Your task to perform on an android device: change text size in settings app Image 0: 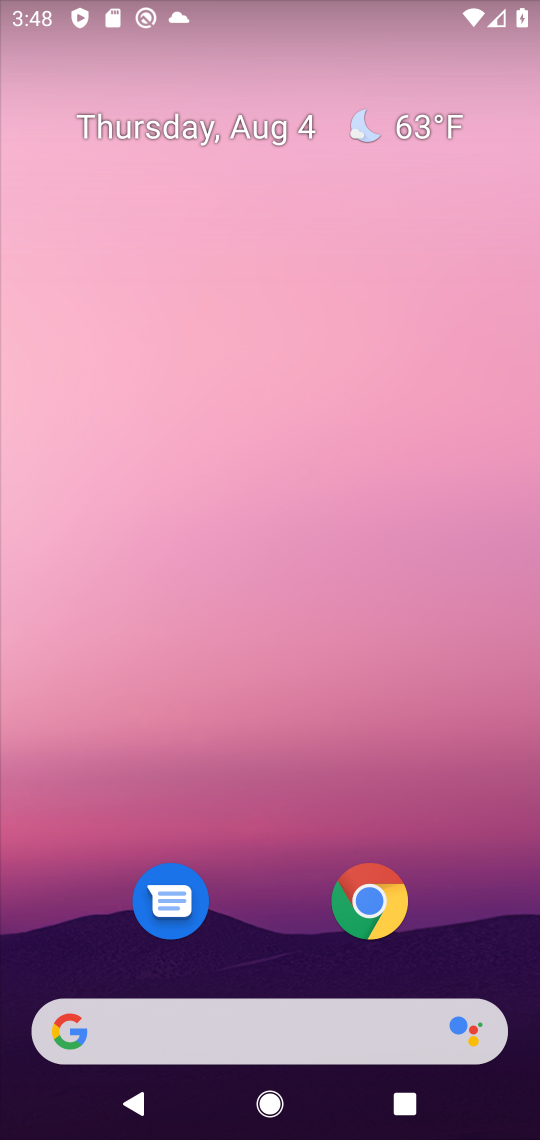
Step 0: press home button
Your task to perform on an android device: change text size in settings app Image 1: 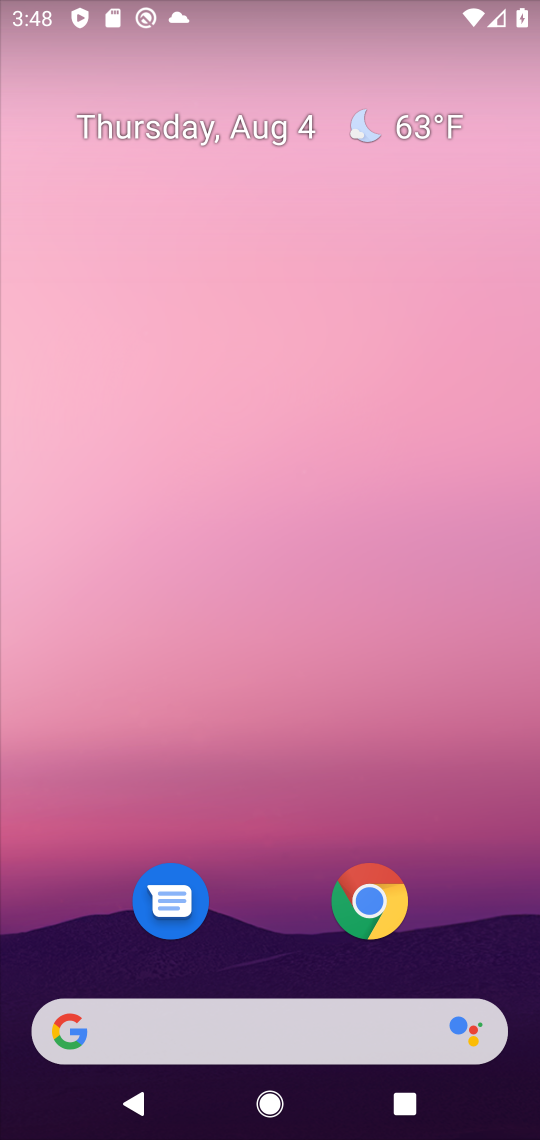
Step 1: drag from (209, 3) to (234, 634)
Your task to perform on an android device: change text size in settings app Image 2: 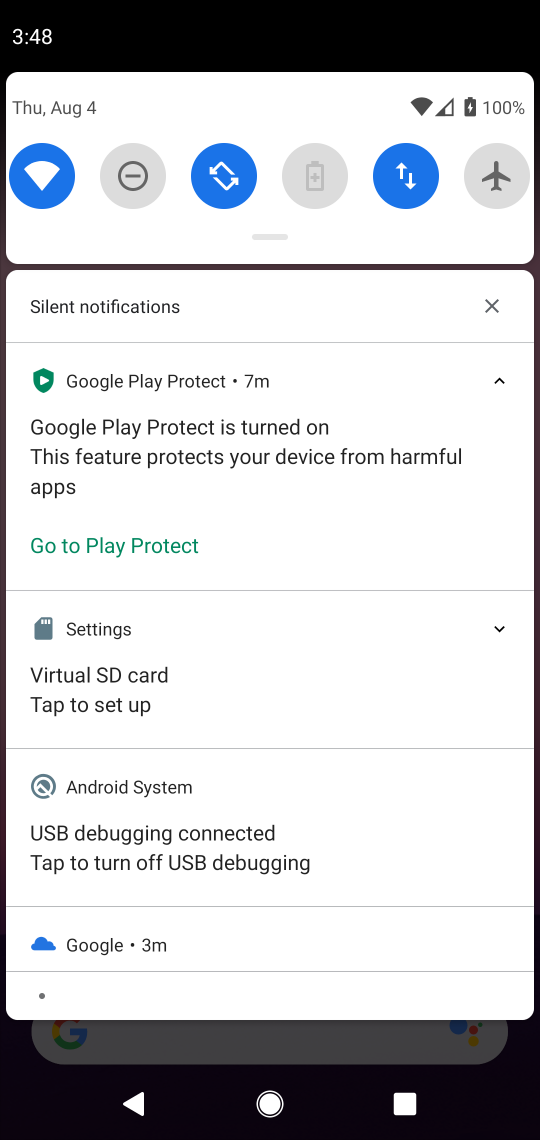
Step 2: press home button
Your task to perform on an android device: change text size in settings app Image 3: 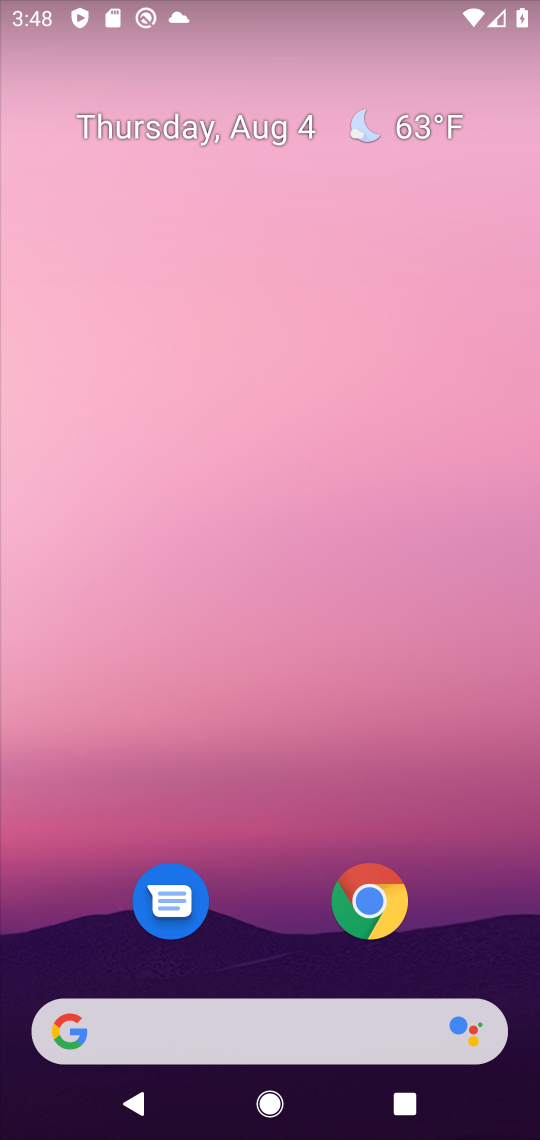
Step 3: drag from (251, 848) to (319, 196)
Your task to perform on an android device: change text size in settings app Image 4: 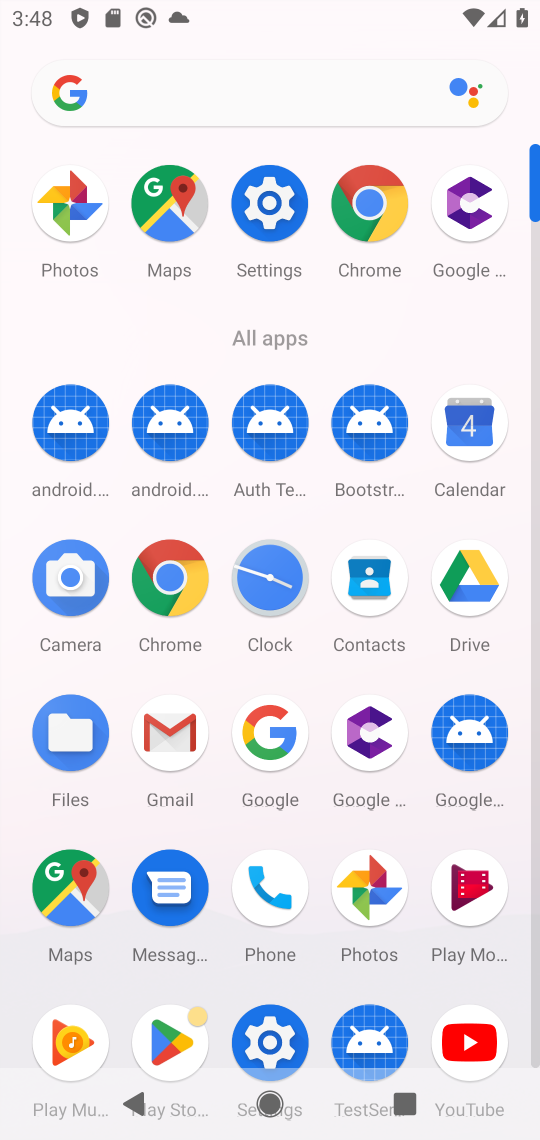
Step 4: click (280, 1041)
Your task to perform on an android device: change text size in settings app Image 5: 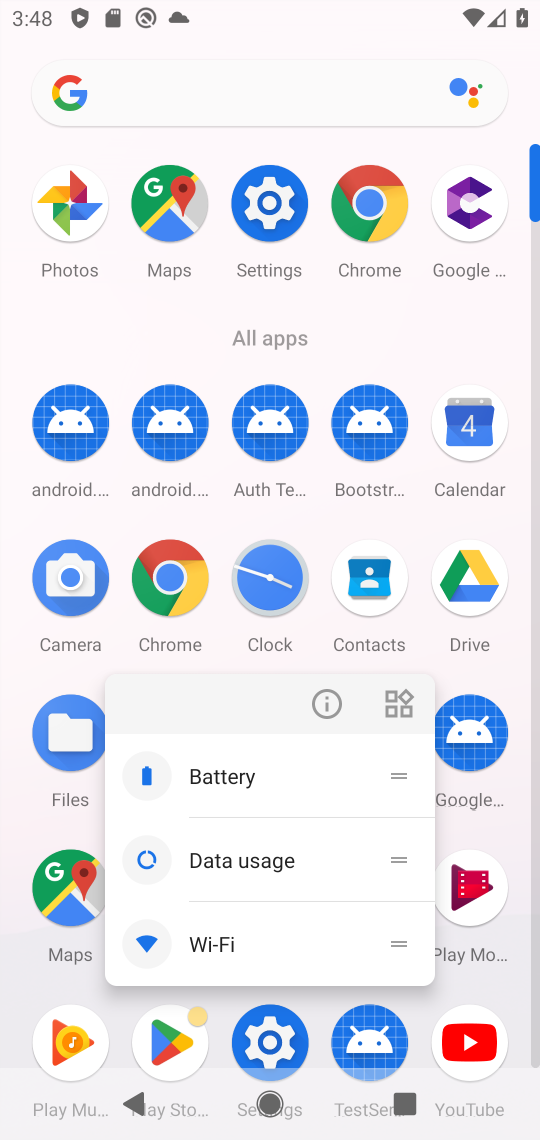
Step 5: click (274, 1034)
Your task to perform on an android device: change text size in settings app Image 6: 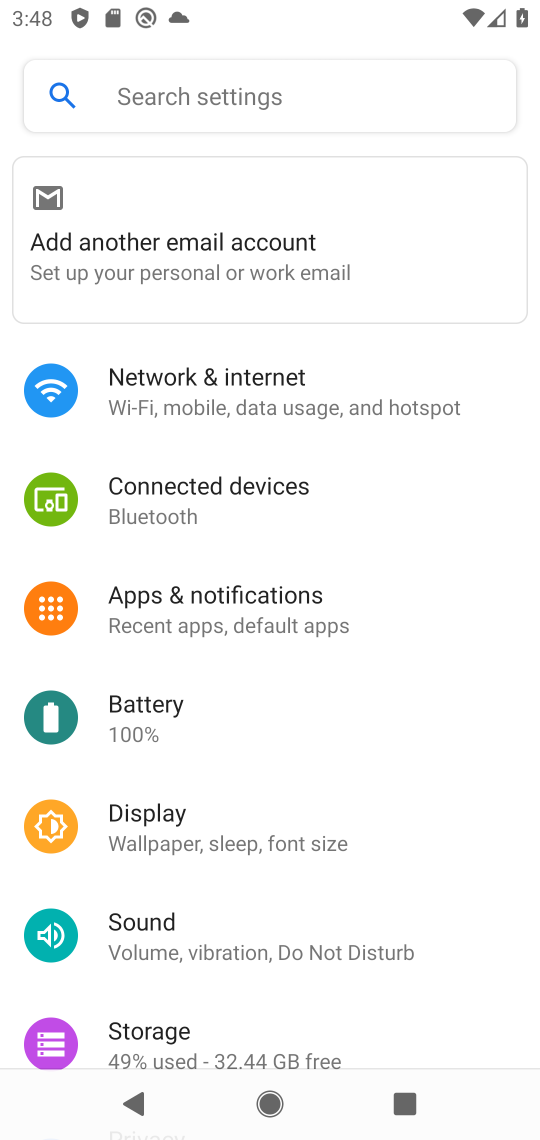
Step 6: drag from (234, 923) to (143, 588)
Your task to perform on an android device: change text size in settings app Image 7: 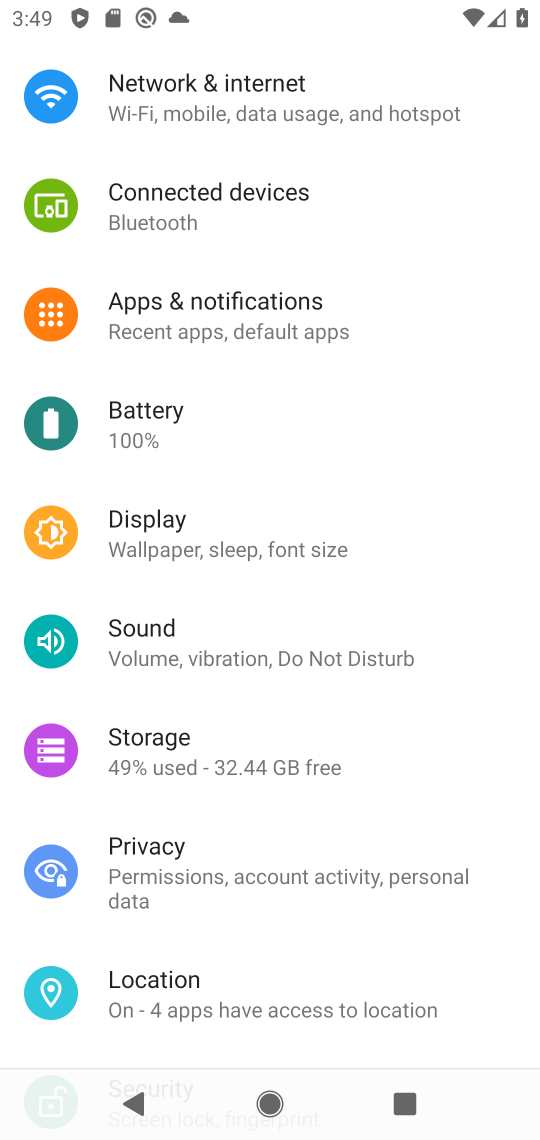
Step 7: click (186, 533)
Your task to perform on an android device: change text size in settings app Image 8: 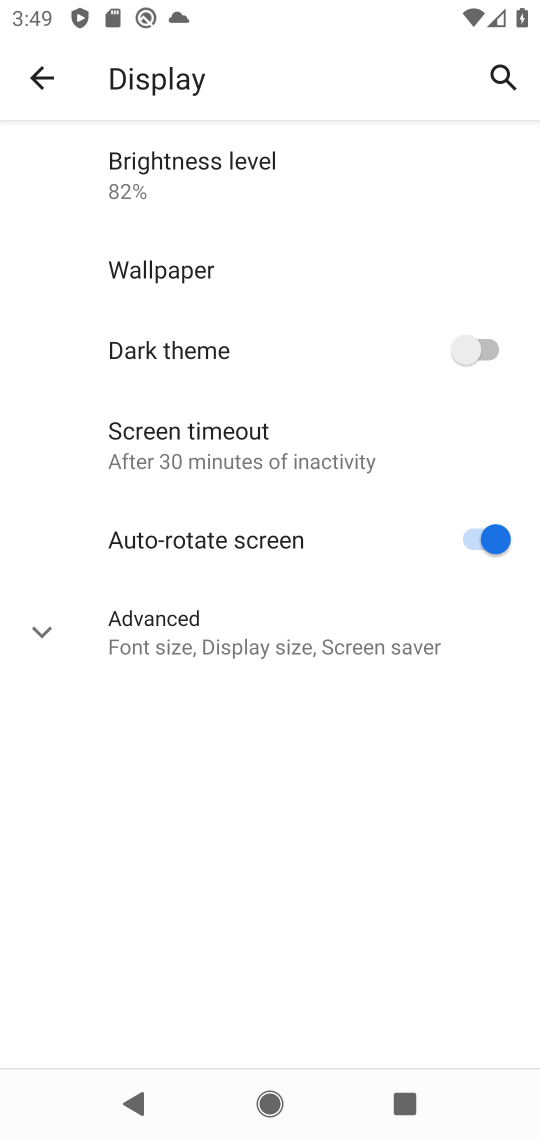
Step 8: click (329, 632)
Your task to perform on an android device: change text size in settings app Image 9: 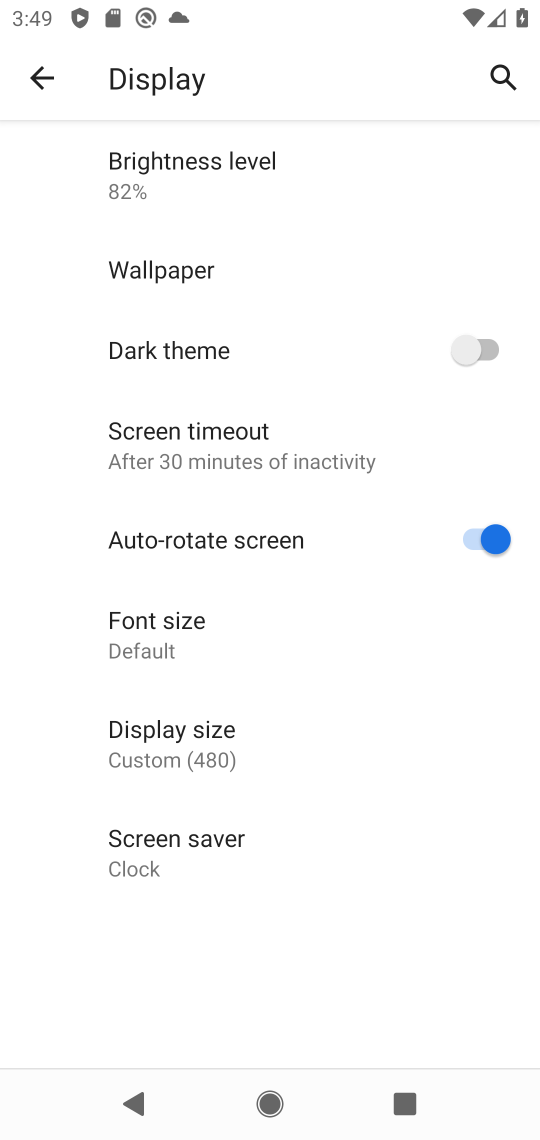
Step 9: click (140, 639)
Your task to perform on an android device: change text size in settings app Image 10: 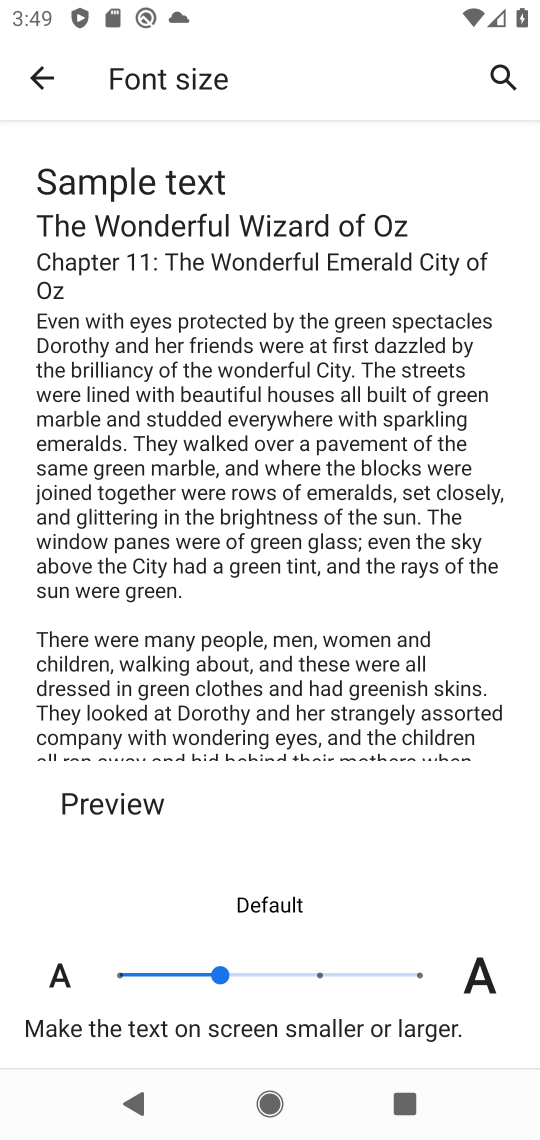
Step 10: click (155, 946)
Your task to perform on an android device: change text size in settings app Image 11: 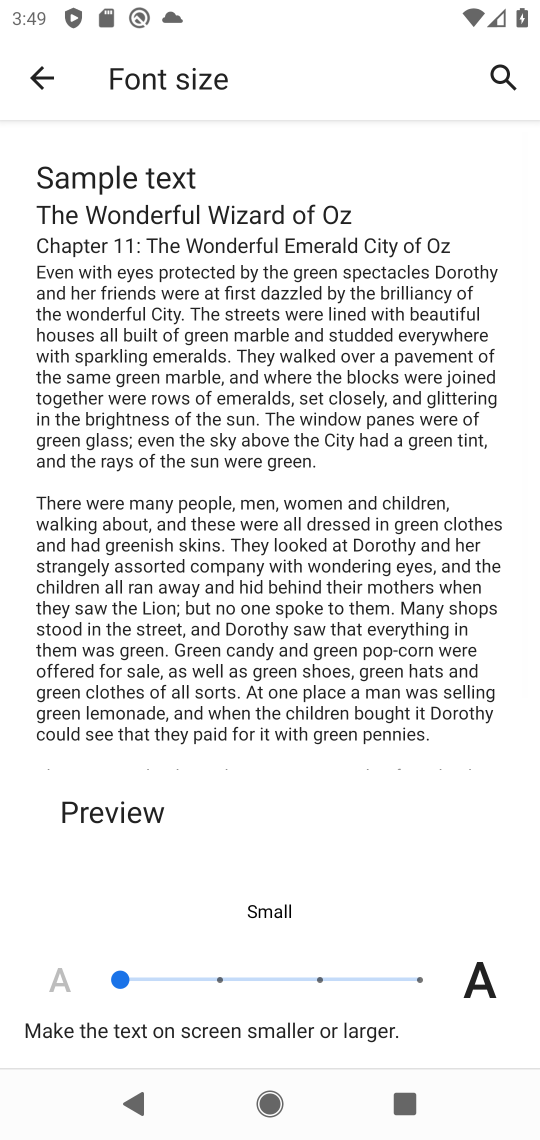
Step 11: task complete